Your task to perform on an android device: toggle notification dots Image 0: 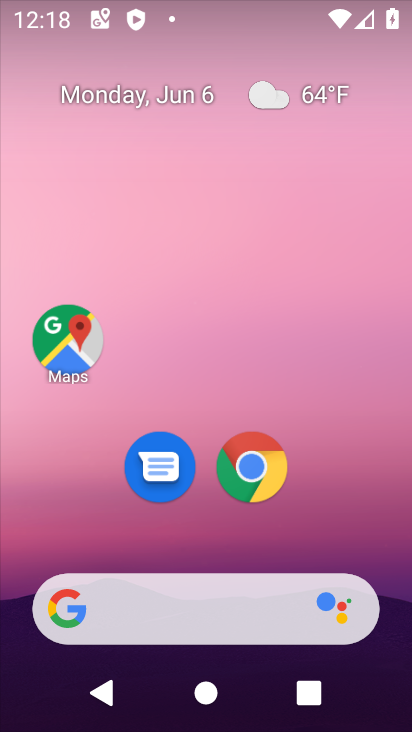
Step 0: drag from (339, 521) to (246, 89)
Your task to perform on an android device: toggle notification dots Image 1: 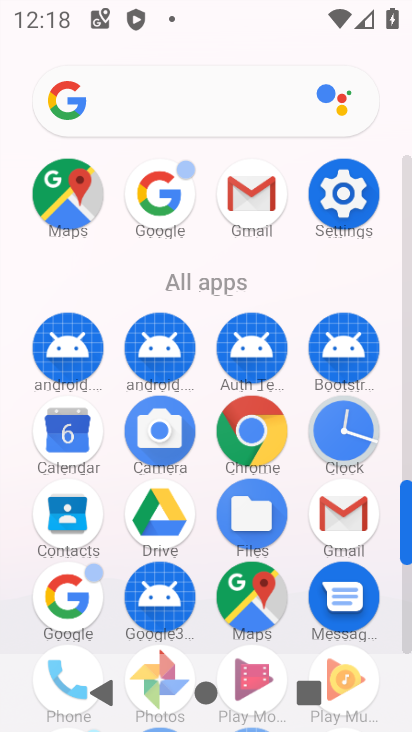
Step 1: click (343, 193)
Your task to perform on an android device: toggle notification dots Image 2: 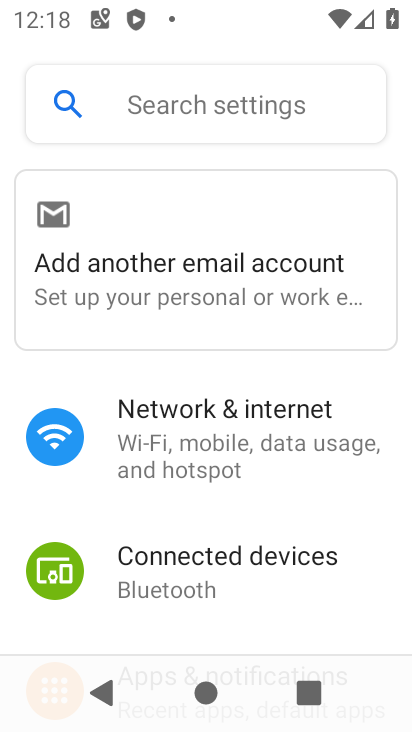
Step 2: drag from (231, 520) to (225, 363)
Your task to perform on an android device: toggle notification dots Image 3: 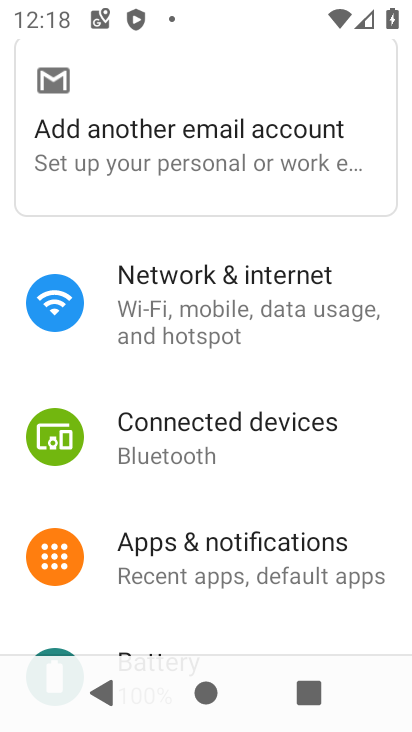
Step 3: click (252, 541)
Your task to perform on an android device: toggle notification dots Image 4: 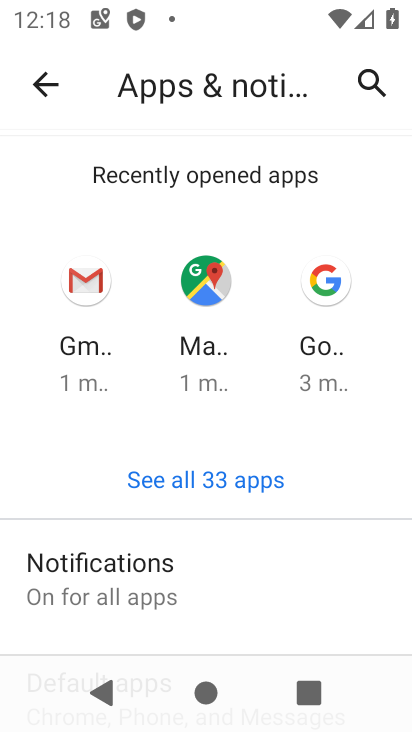
Step 4: click (142, 563)
Your task to perform on an android device: toggle notification dots Image 5: 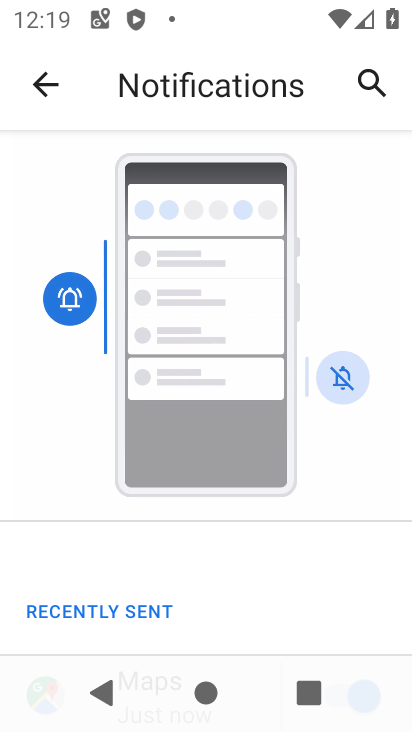
Step 5: drag from (178, 544) to (279, 303)
Your task to perform on an android device: toggle notification dots Image 6: 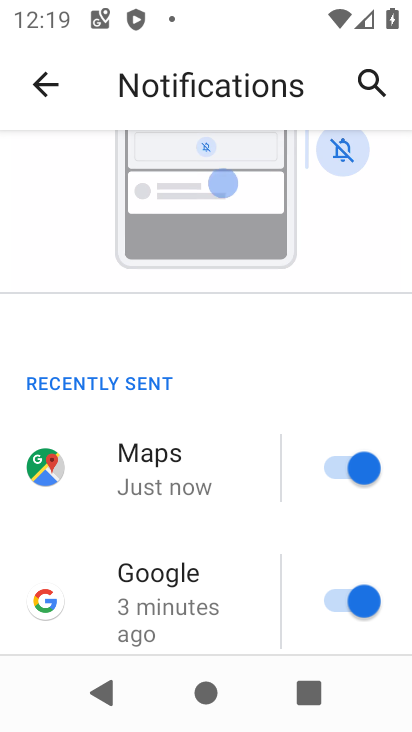
Step 6: drag from (198, 530) to (246, 398)
Your task to perform on an android device: toggle notification dots Image 7: 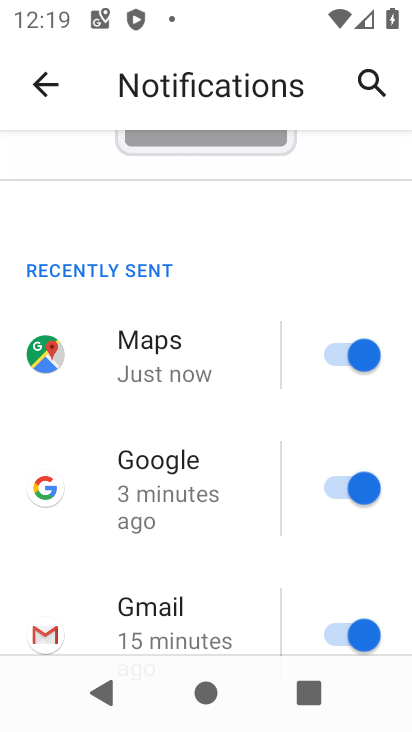
Step 7: drag from (183, 549) to (232, 367)
Your task to perform on an android device: toggle notification dots Image 8: 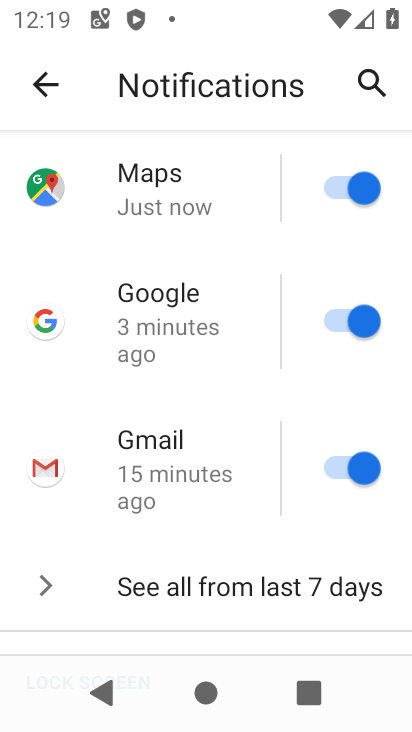
Step 8: drag from (137, 546) to (222, 304)
Your task to perform on an android device: toggle notification dots Image 9: 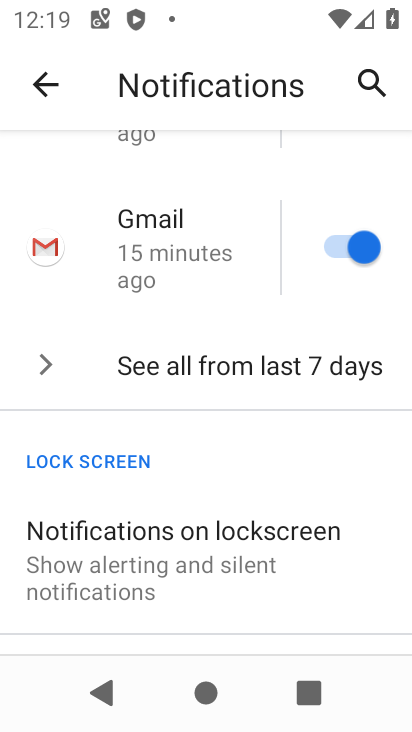
Step 9: drag from (145, 495) to (221, 401)
Your task to perform on an android device: toggle notification dots Image 10: 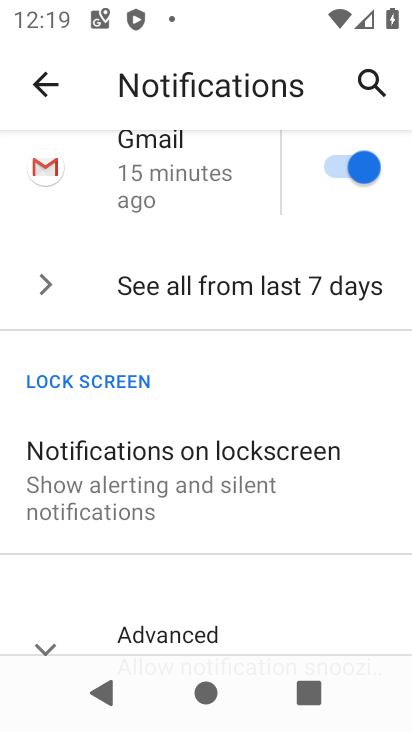
Step 10: drag from (205, 599) to (252, 495)
Your task to perform on an android device: toggle notification dots Image 11: 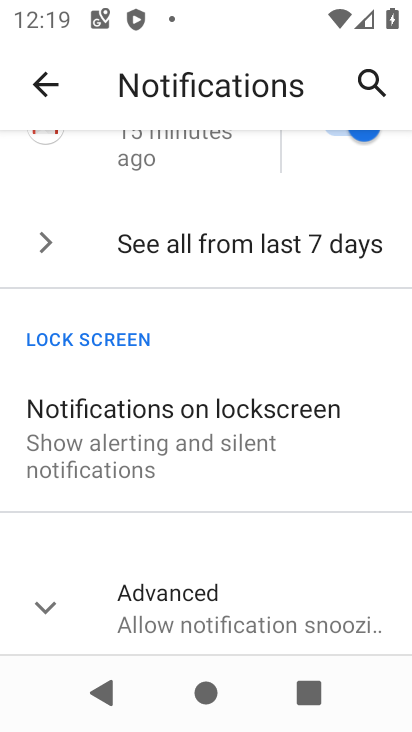
Step 11: click (120, 591)
Your task to perform on an android device: toggle notification dots Image 12: 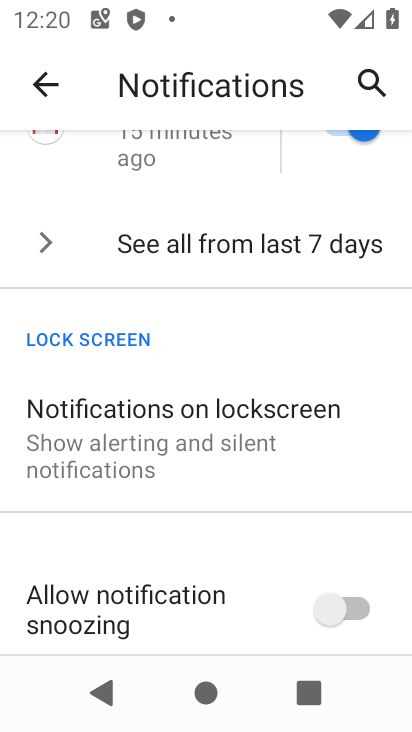
Step 12: drag from (140, 568) to (175, 406)
Your task to perform on an android device: toggle notification dots Image 13: 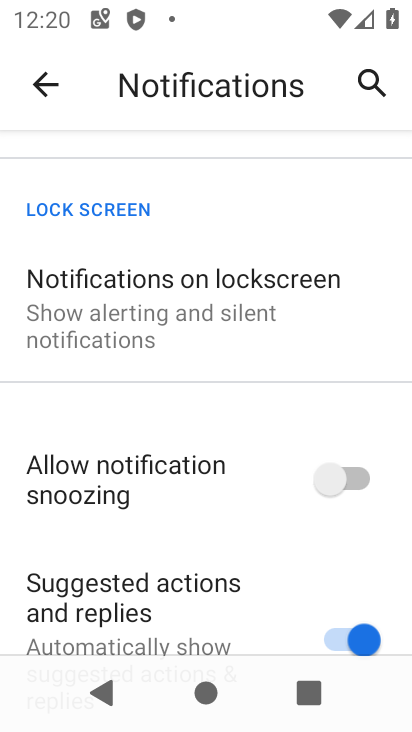
Step 13: drag from (114, 552) to (215, 402)
Your task to perform on an android device: toggle notification dots Image 14: 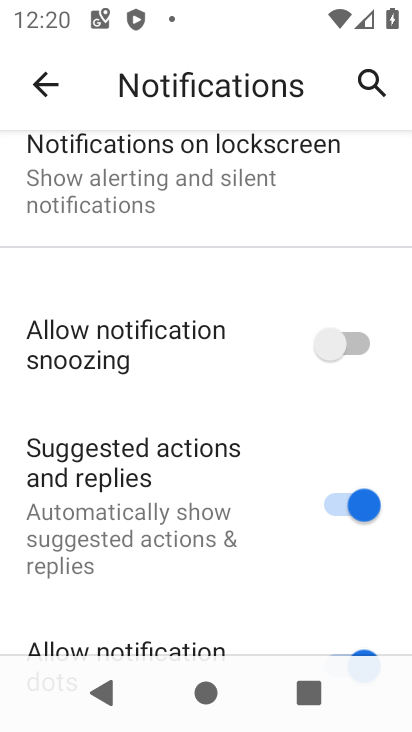
Step 14: drag from (141, 589) to (237, 407)
Your task to perform on an android device: toggle notification dots Image 15: 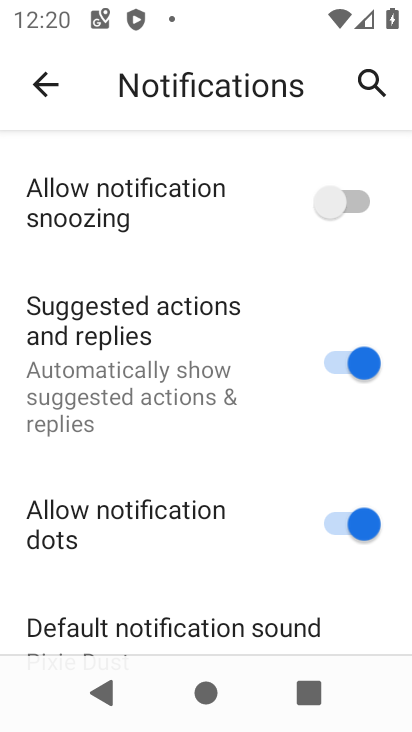
Step 15: click (336, 523)
Your task to perform on an android device: toggle notification dots Image 16: 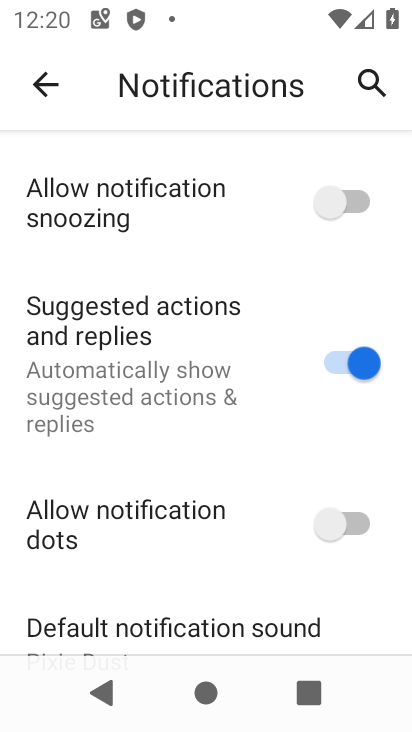
Step 16: task complete